Your task to perform on an android device: turn on notifications settings in the gmail app Image 0: 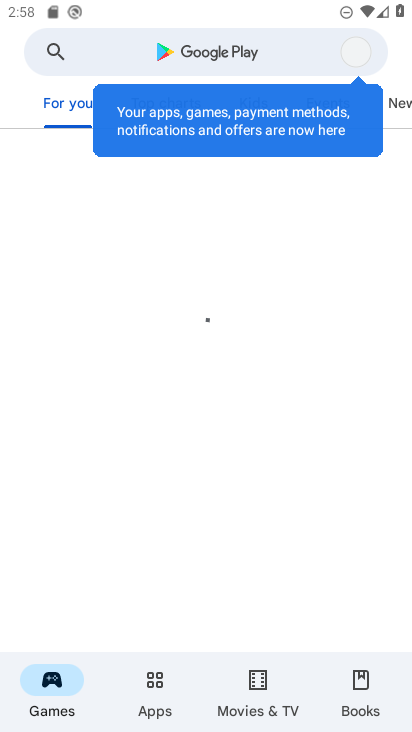
Step 0: press home button
Your task to perform on an android device: turn on notifications settings in the gmail app Image 1: 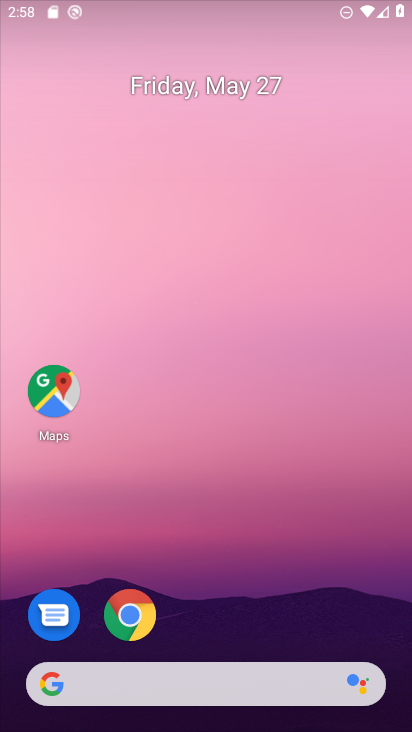
Step 1: drag from (289, 602) to (140, 61)
Your task to perform on an android device: turn on notifications settings in the gmail app Image 2: 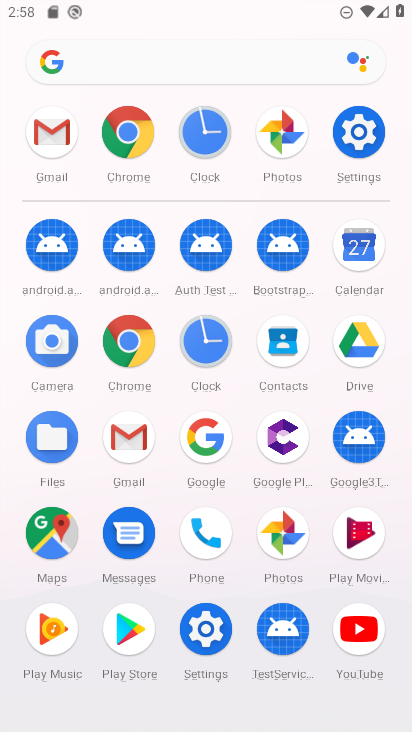
Step 2: click (99, 437)
Your task to perform on an android device: turn on notifications settings in the gmail app Image 3: 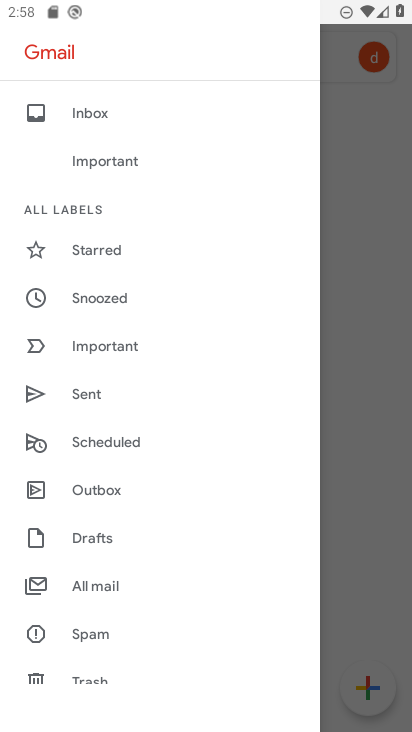
Step 3: drag from (159, 592) to (170, 167)
Your task to perform on an android device: turn on notifications settings in the gmail app Image 4: 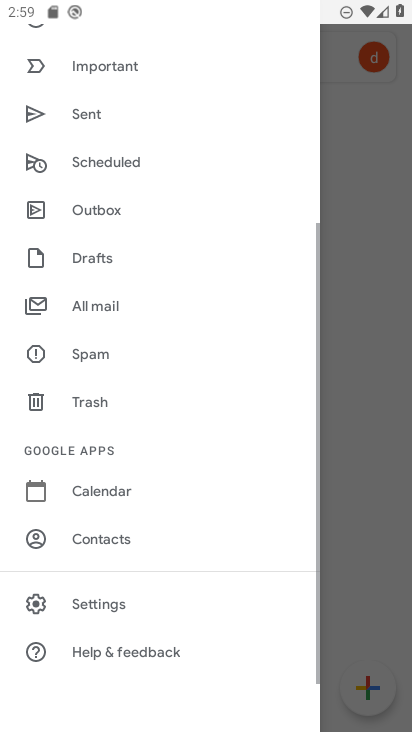
Step 4: click (106, 600)
Your task to perform on an android device: turn on notifications settings in the gmail app Image 5: 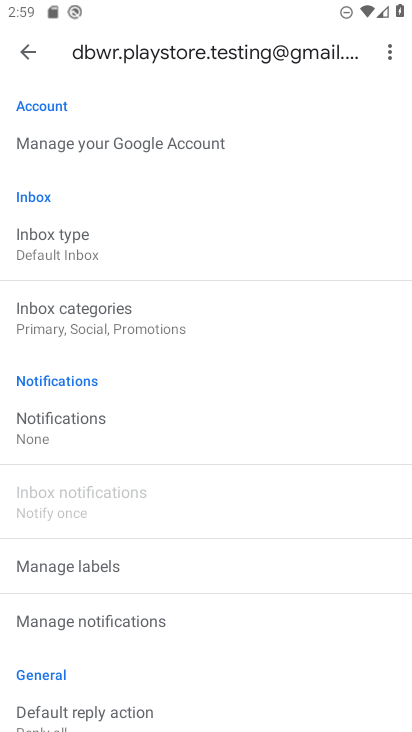
Step 5: click (78, 432)
Your task to perform on an android device: turn on notifications settings in the gmail app Image 6: 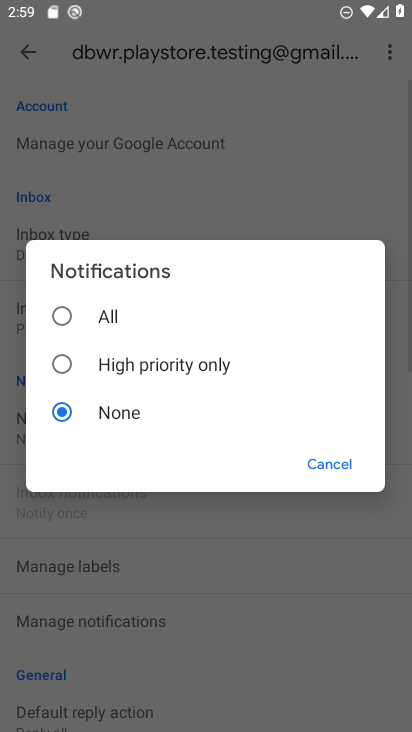
Step 6: click (94, 319)
Your task to perform on an android device: turn on notifications settings in the gmail app Image 7: 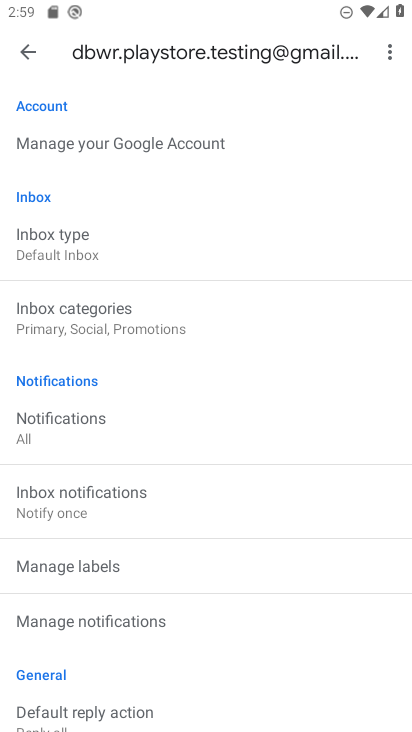
Step 7: task complete